Your task to perform on an android device: Open the calendar app, open the side menu, and click the "Day" option Image 0: 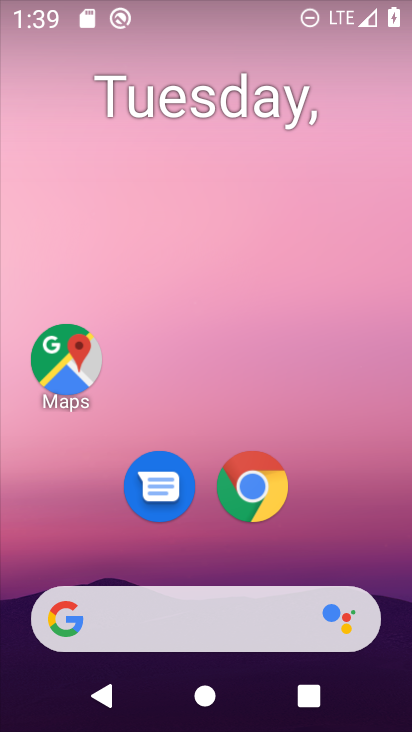
Step 0: drag from (220, 565) to (237, 185)
Your task to perform on an android device: Open the calendar app, open the side menu, and click the "Day" option Image 1: 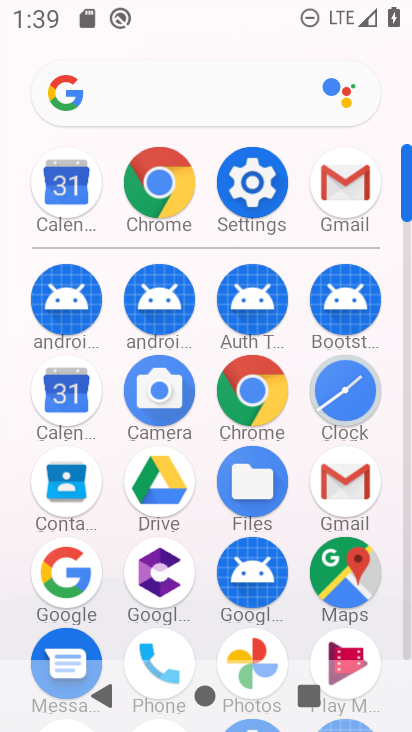
Step 1: click (58, 419)
Your task to perform on an android device: Open the calendar app, open the side menu, and click the "Day" option Image 2: 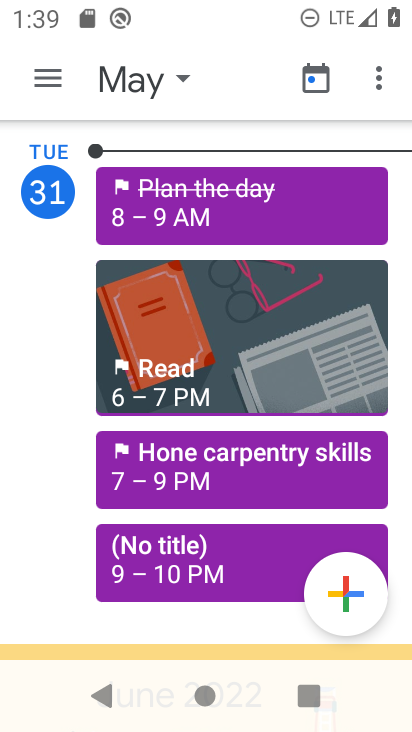
Step 2: click (43, 87)
Your task to perform on an android device: Open the calendar app, open the side menu, and click the "Day" option Image 3: 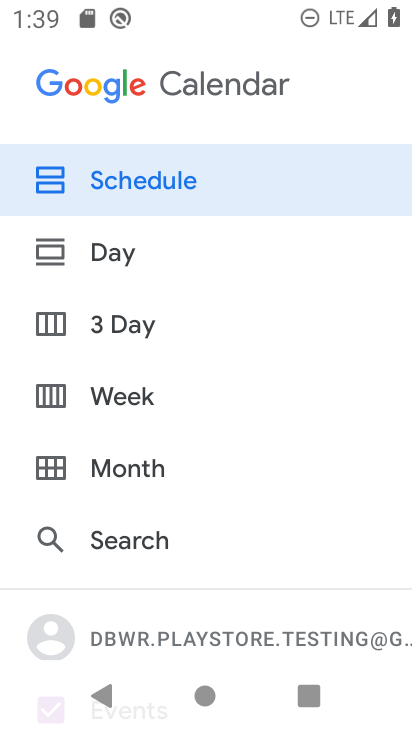
Step 3: click (136, 263)
Your task to perform on an android device: Open the calendar app, open the side menu, and click the "Day" option Image 4: 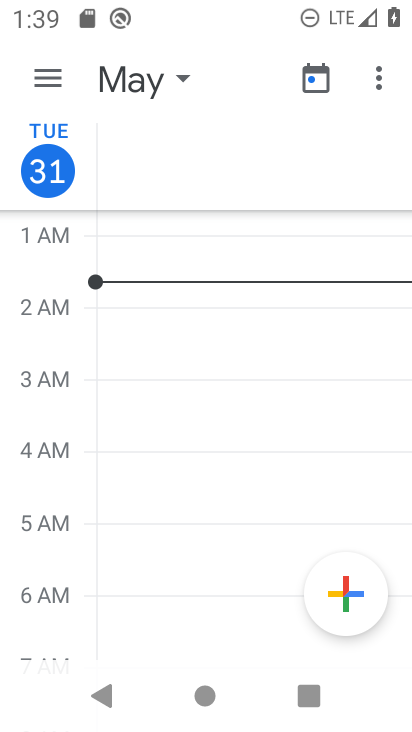
Step 4: task complete